Your task to perform on an android device: Go to location settings Image 0: 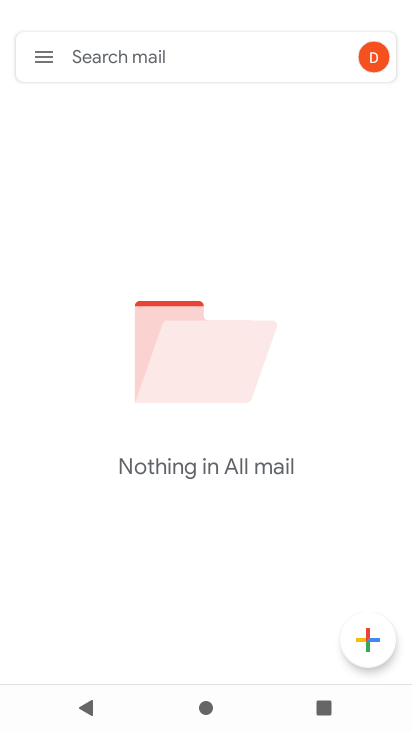
Step 0: press home button
Your task to perform on an android device: Go to location settings Image 1: 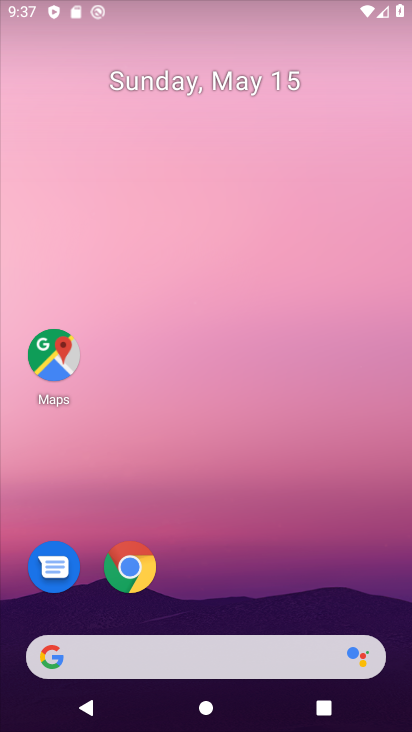
Step 1: drag from (236, 541) to (227, 97)
Your task to perform on an android device: Go to location settings Image 2: 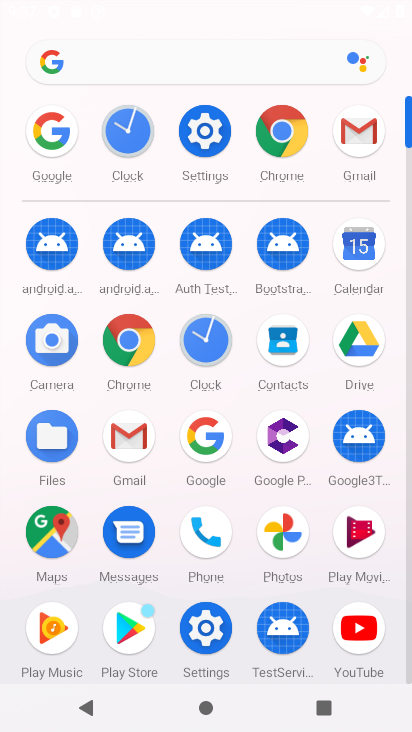
Step 2: click (201, 122)
Your task to perform on an android device: Go to location settings Image 3: 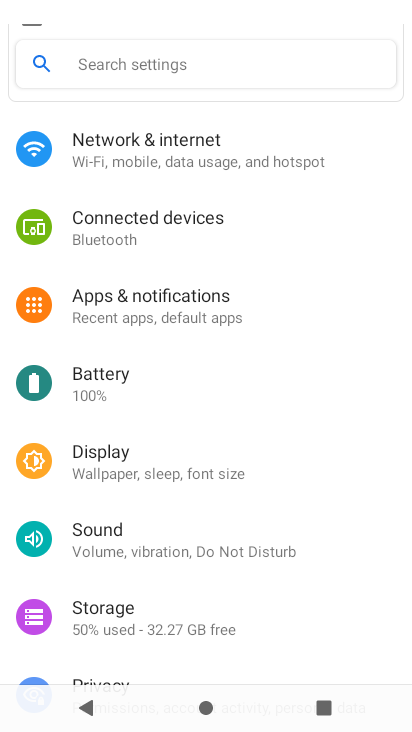
Step 3: drag from (209, 608) to (185, 206)
Your task to perform on an android device: Go to location settings Image 4: 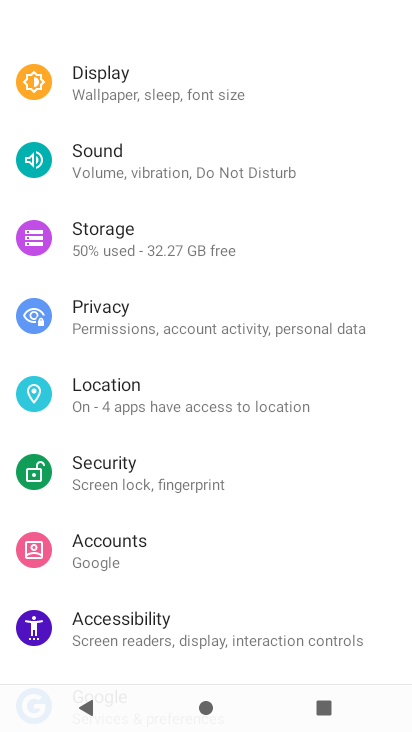
Step 4: click (109, 388)
Your task to perform on an android device: Go to location settings Image 5: 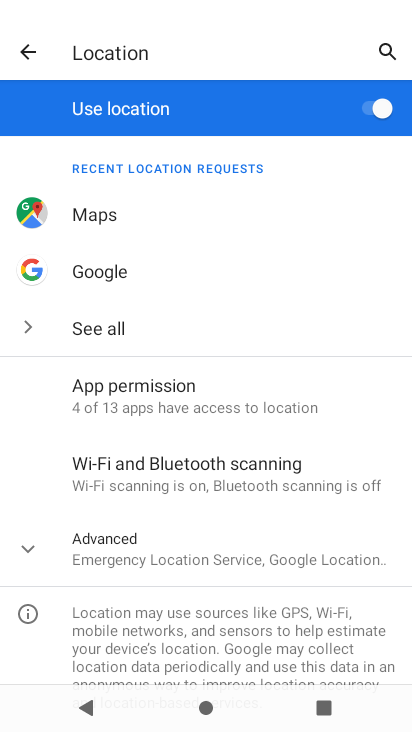
Step 5: task complete